Your task to perform on an android device: manage bookmarks in the chrome app Image 0: 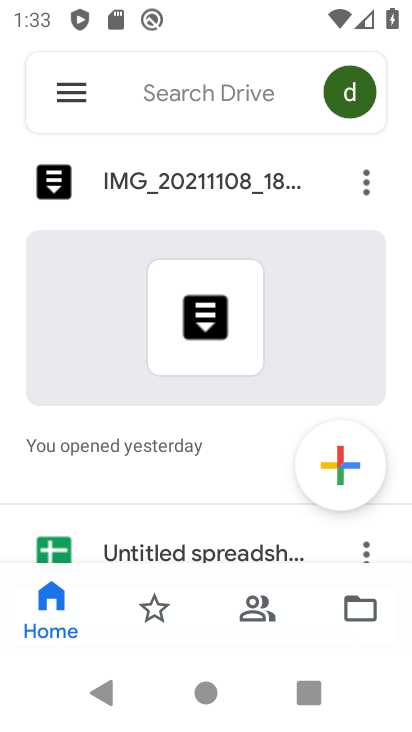
Step 0: press home button
Your task to perform on an android device: manage bookmarks in the chrome app Image 1: 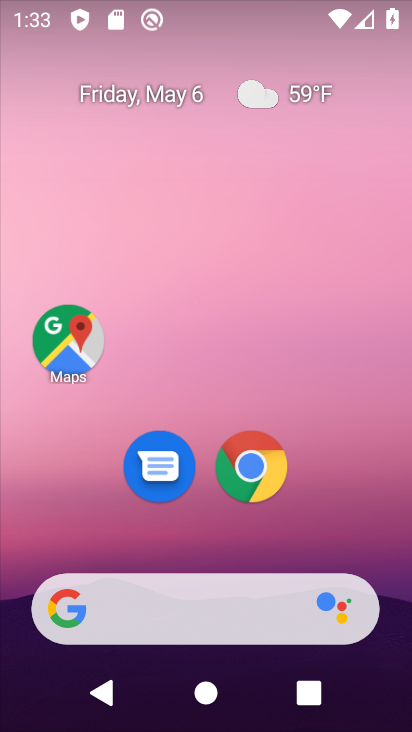
Step 1: click (248, 459)
Your task to perform on an android device: manage bookmarks in the chrome app Image 2: 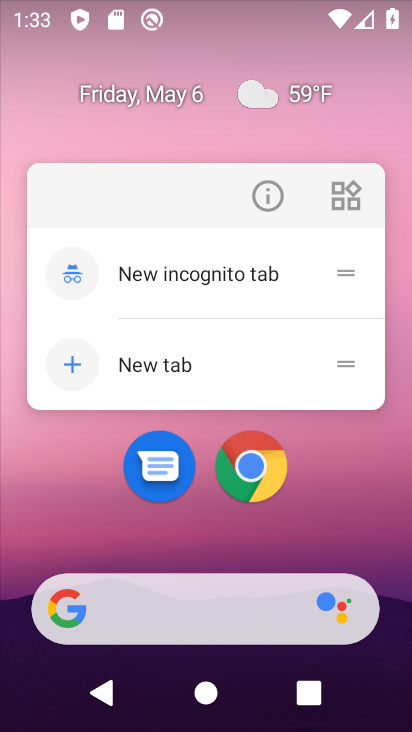
Step 2: click (344, 480)
Your task to perform on an android device: manage bookmarks in the chrome app Image 3: 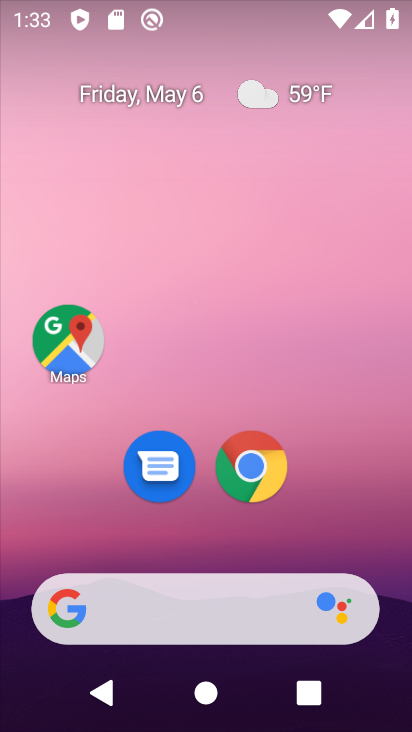
Step 3: click (250, 461)
Your task to perform on an android device: manage bookmarks in the chrome app Image 4: 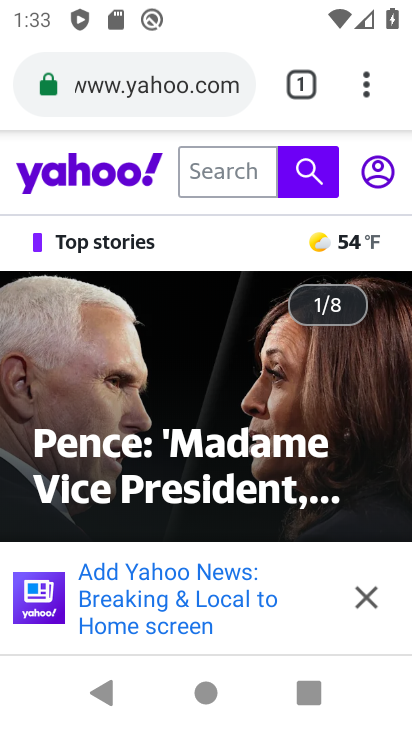
Step 4: click (365, 78)
Your task to perform on an android device: manage bookmarks in the chrome app Image 5: 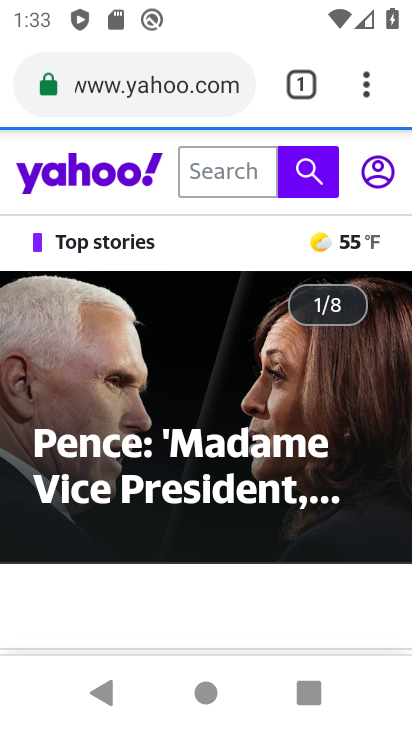
Step 5: click (361, 84)
Your task to perform on an android device: manage bookmarks in the chrome app Image 6: 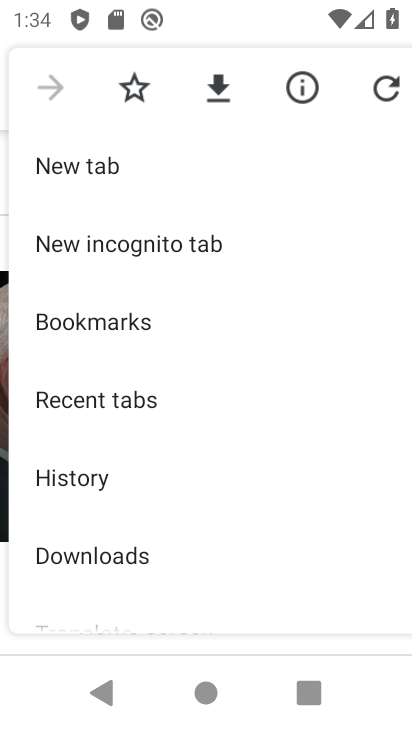
Step 6: click (162, 319)
Your task to perform on an android device: manage bookmarks in the chrome app Image 7: 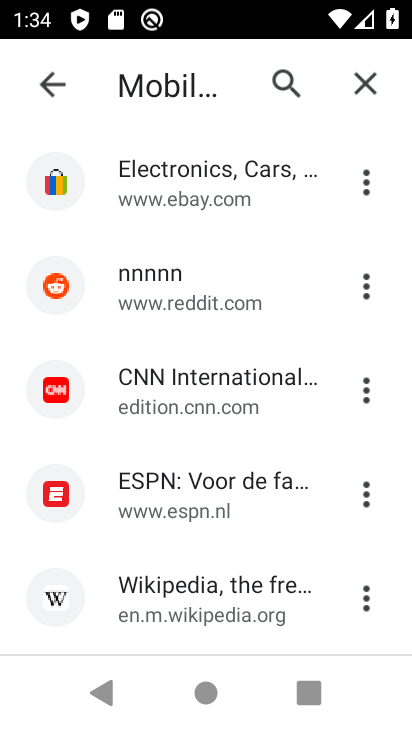
Step 7: click (365, 278)
Your task to perform on an android device: manage bookmarks in the chrome app Image 8: 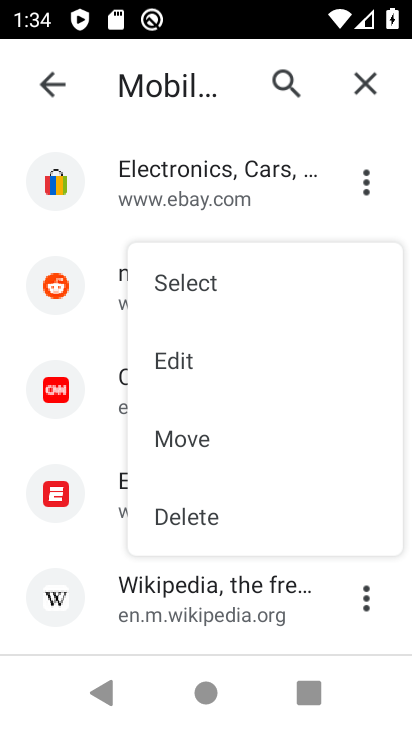
Step 8: click (207, 524)
Your task to perform on an android device: manage bookmarks in the chrome app Image 9: 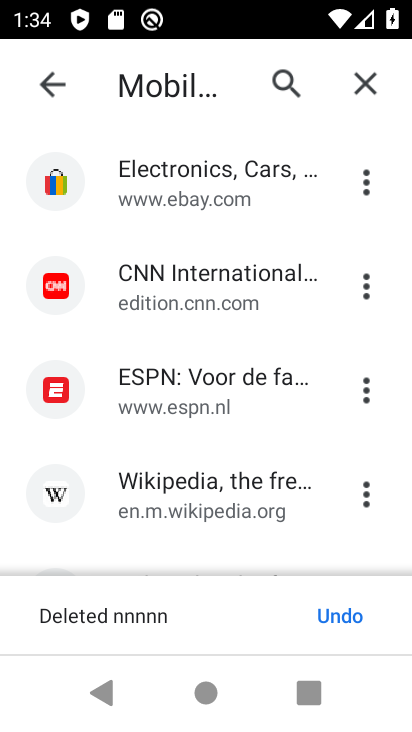
Step 9: task complete